Your task to perform on an android device: toggle improve location accuracy Image 0: 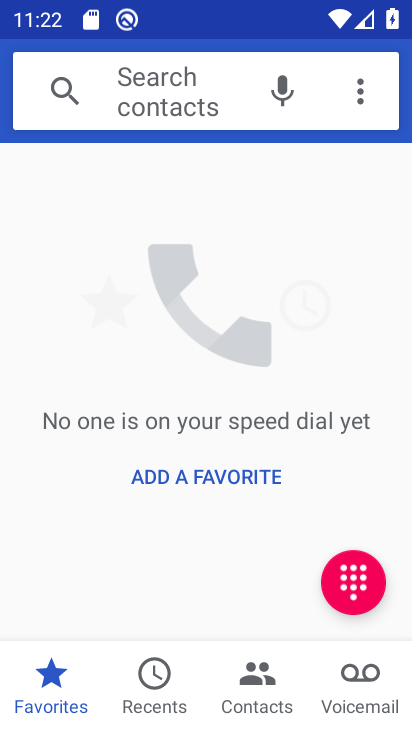
Step 0: press home button
Your task to perform on an android device: toggle improve location accuracy Image 1: 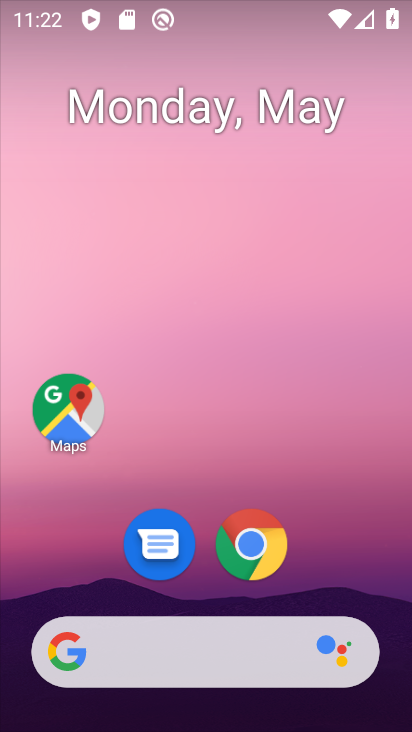
Step 1: drag from (331, 547) to (264, 204)
Your task to perform on an android device: toggle improve location accuracy Image 2: 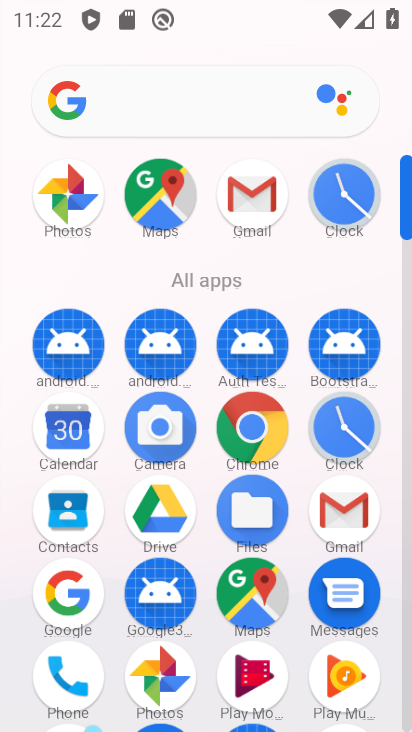
Step 2: drag from (201, 620) to (199, 286)
Your task to perform on an android device: toggle improve location accuracy Image 3: 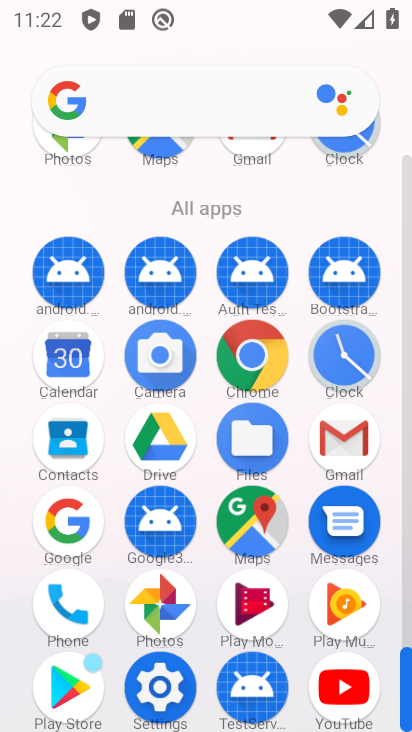
Step 3: click (166, 685)
Your task to perform on an android device: toggle improve location accuracy Image 4: 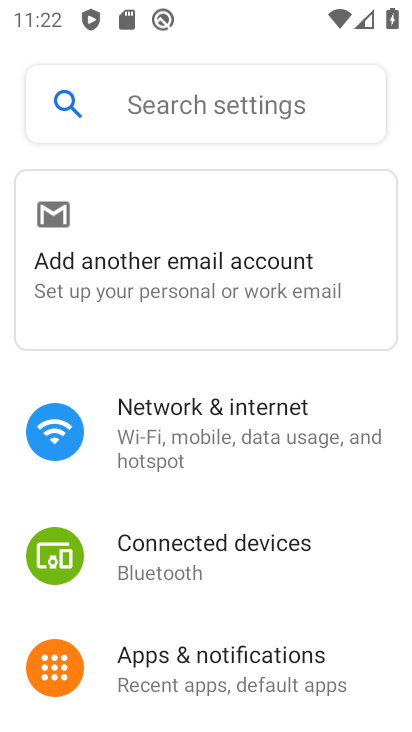
Step 4: drag from (218, 592) to (218, 375)
Your task to perform on an android device: toggle improve location accuracy Image 5: 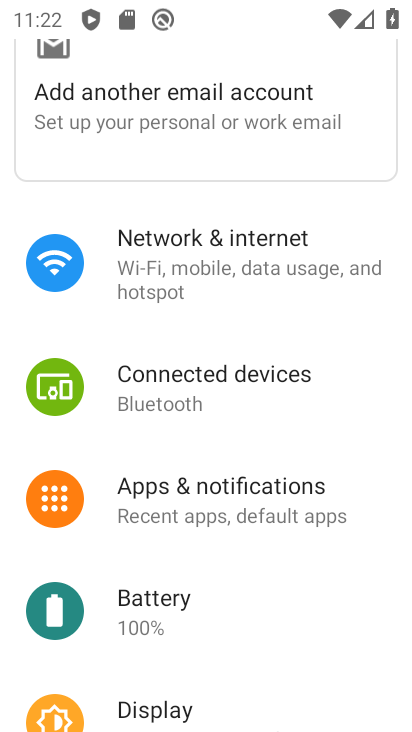
Step 5: drag from (213, 556) to (181, 267)
Your task to perform on an android device: toggle improve location accuracy Image 6: 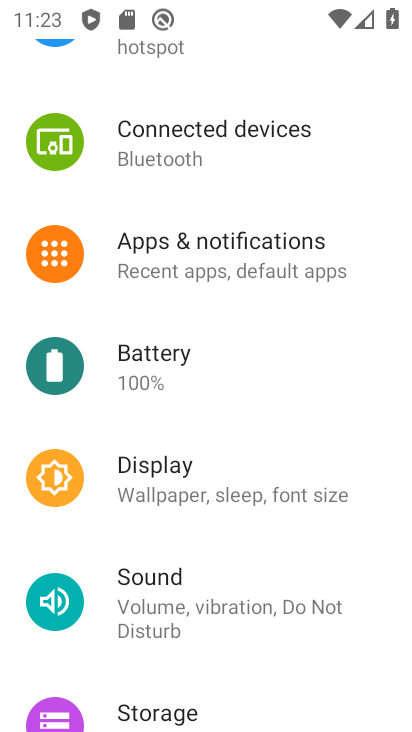
Step 6: drag from (195, 674) to (158, 392)
Your task to perform on an android device: toggle improve location accuracy Image 7: 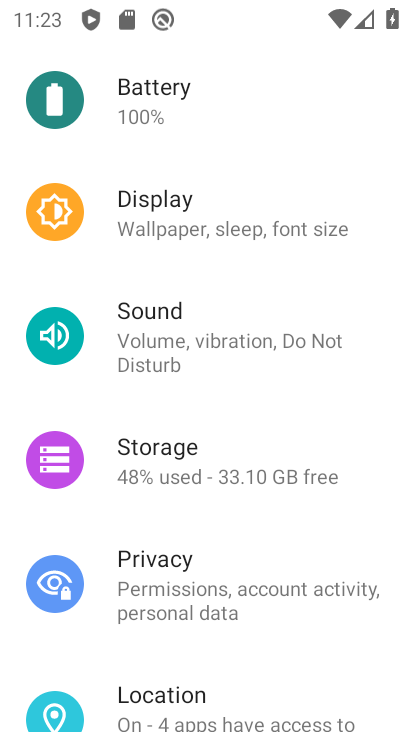
Step 7: click (150, 707)
Your task to perform on an android device: toggle improve location accuracy Image 8: 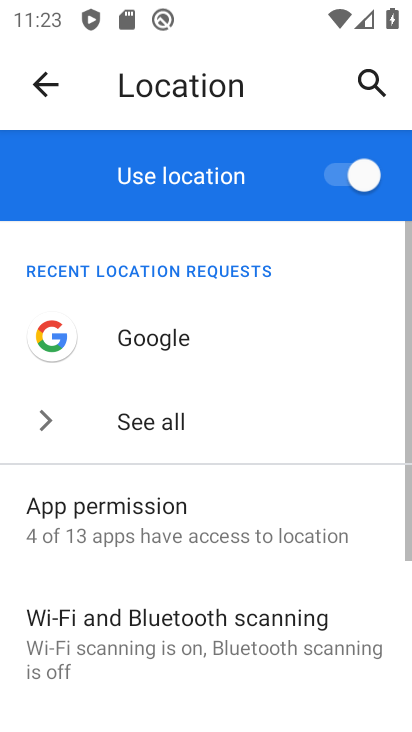
Step 8: drag from (214, 559) to (188, 297)
Your task to perform on an android device: toggle improve location accuracy Image 9: 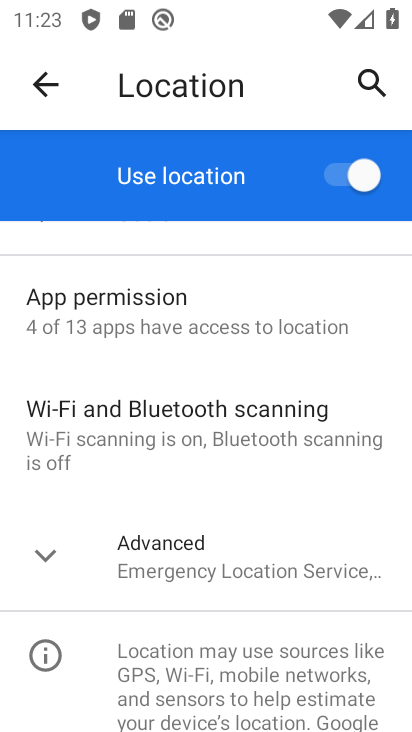
Step 9: click (49, 550)
Your task to perform on an android device: toggle improve location accuracy Image 10: 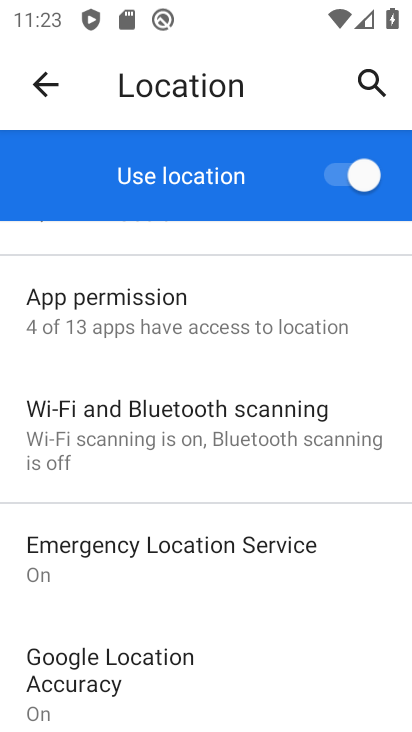
Step 10: drag from (144, 611) to (147, 415)
Your task to perform on an android device: toggle improve location accuracy Image 11: 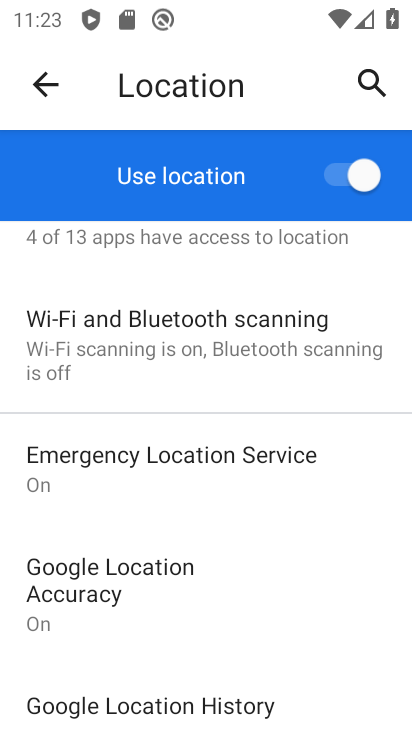
Step 11: click (100, 570)
Your task to perform on an android device: toggle improve location accuracy Image 12: 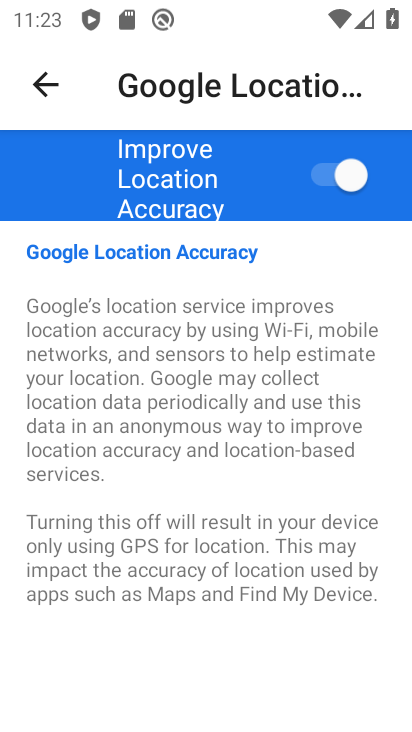
Step 12: click (347, 171)
Your task to perform on an android device: toggle improve location accuracy Image 13: 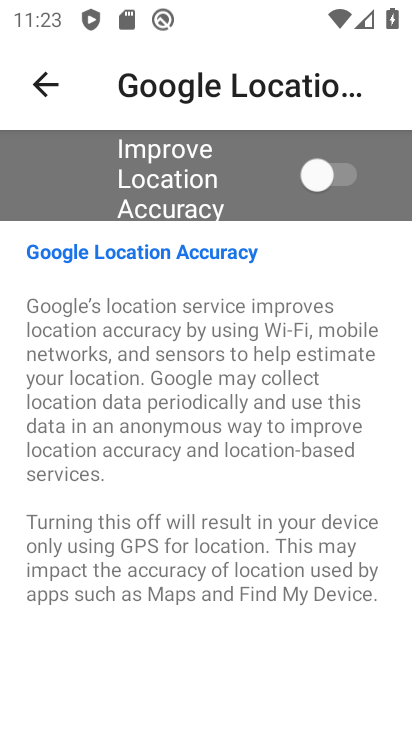
Step 13: task complete